Your task to perform on an android device: Open accessibility settings Image 0: 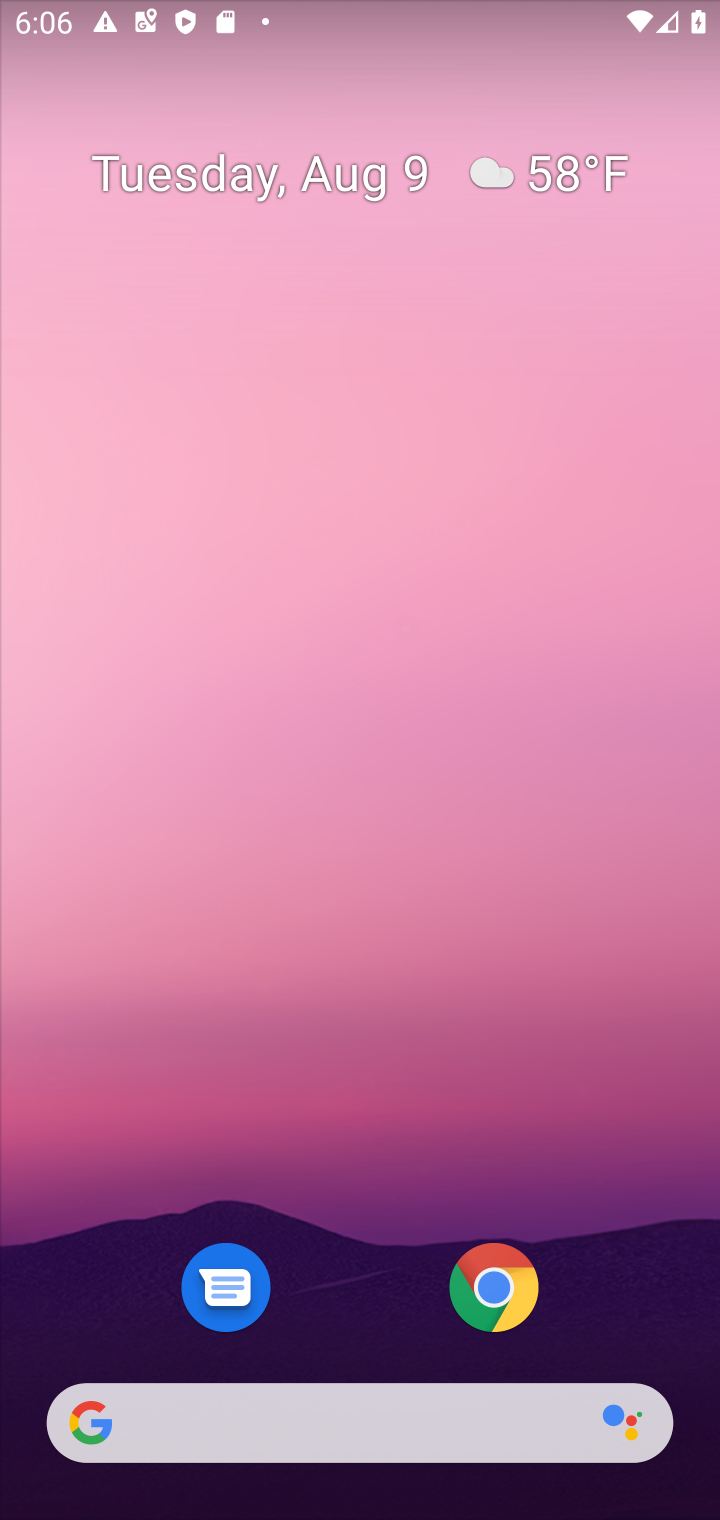
Step 0: drag from (415, 869) to (408, 695)
Your task to perform on an android device: Open accessibility settings Image 1: 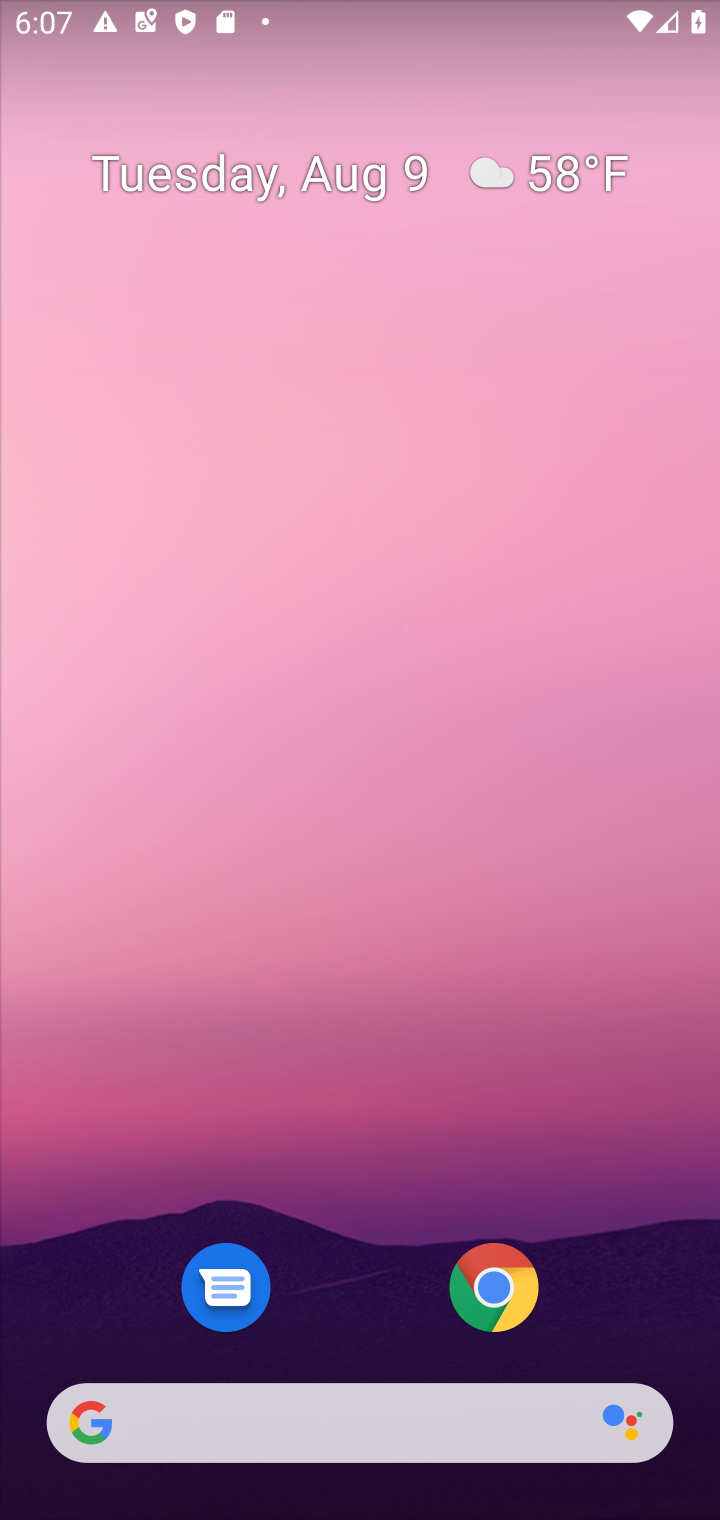
Step 1: drag from (343, 1085) to (449, 20)
Your task to perform on an android device: Open accessibility settings Image 2: 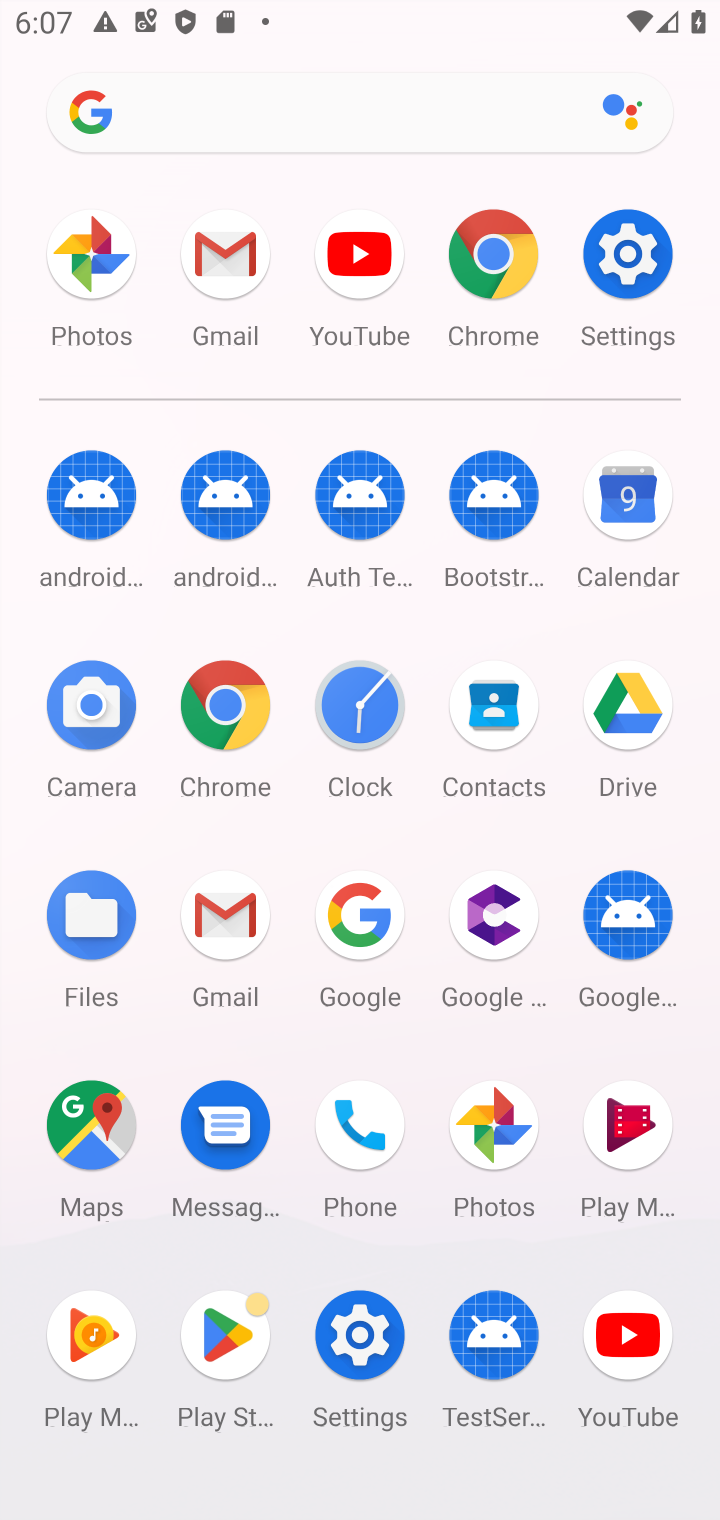
Step 2: click (625, 268)
Your task to perform on an android device: Open accessibility settings Image 3: 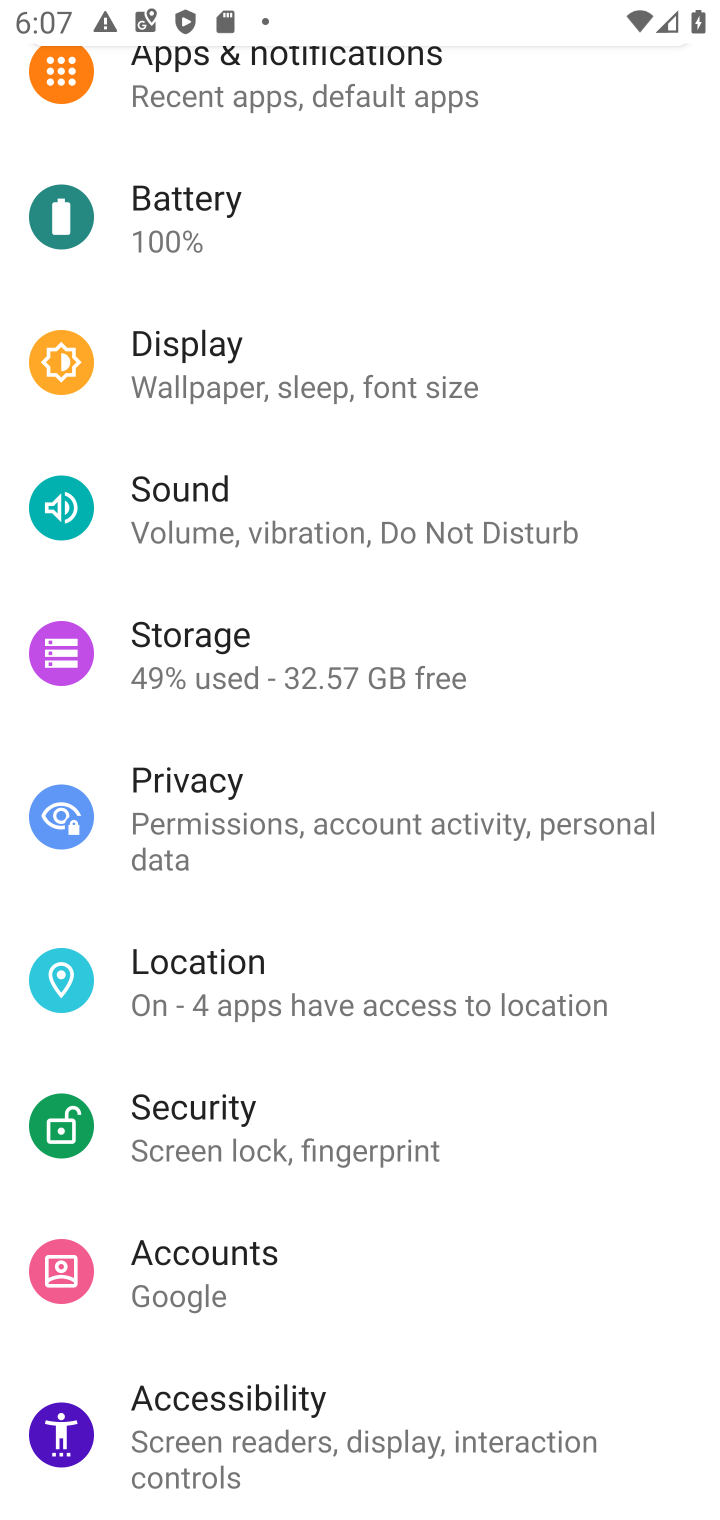
Step 3: click (297, 1441)
Your task to perform on an android device: Open accessibility settings Image 4: 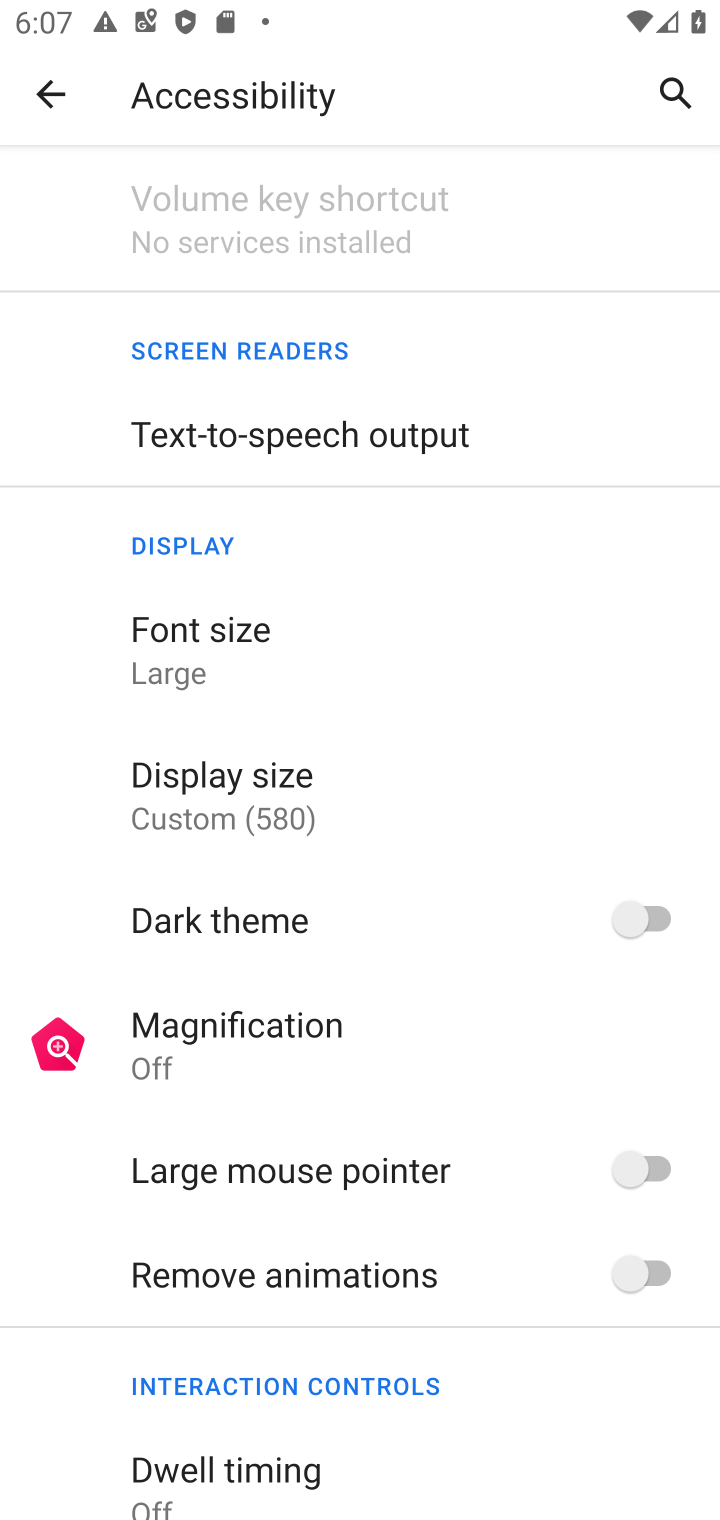
Step 4: task complete